Your task to perform on an android device: turn off sleep mode Image 0: 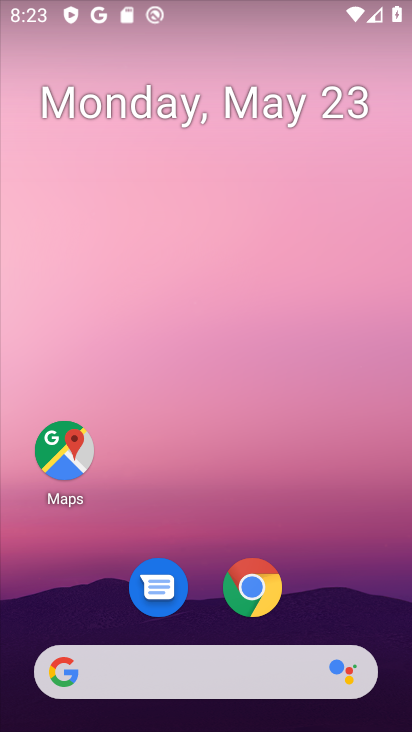
Step 0: drag from (102, 566) to (207, 146)
Your task to perform on an android device: turn off sleep mode Image 1: 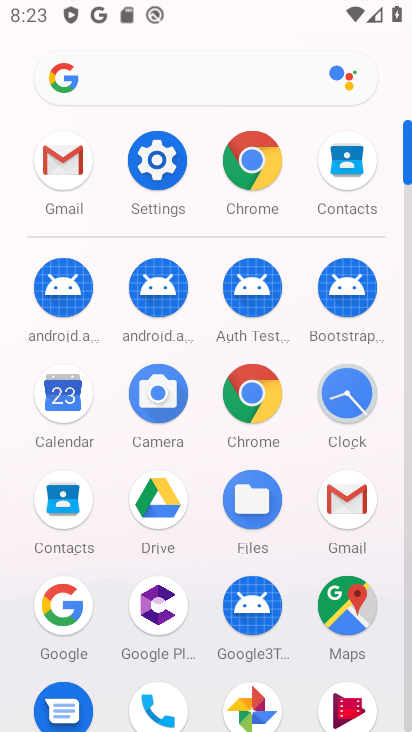
Step 1: click (152, 161)
Your task to perform on an android device: turn off sleep mode Image 2: 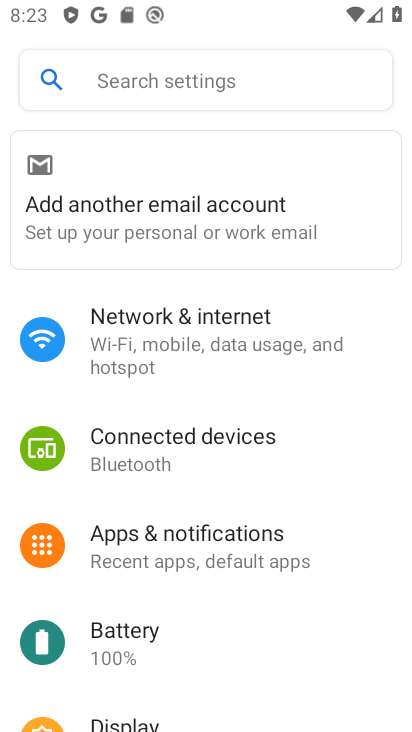
Step 2: click (125, 81)
Your task to perform on an android device: turn off sleep mode Image 3: 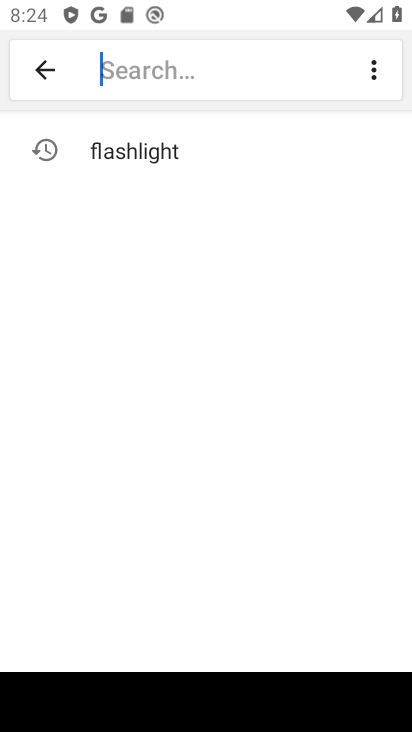
Step 3: type "sleep mode"
Your task to perform on an android device: turn off sleep mode Image 4: 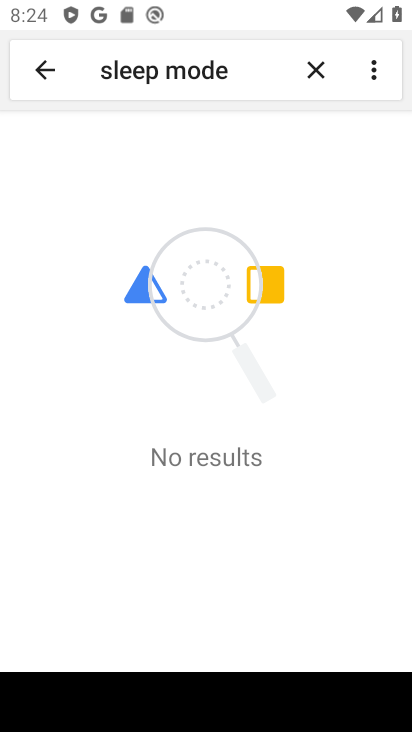
Step 4: task complete